Your task to perform on an android device: open the mobile data screen to see how much data has been used Image 0: 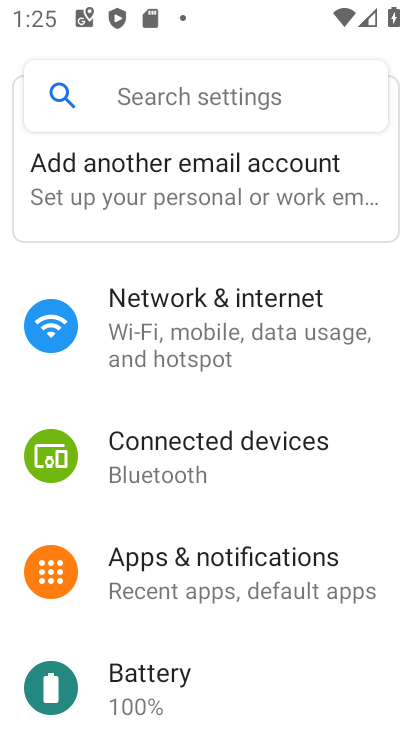
Step 0: click (301, 307)
Your task to perform on an android device: open the mobile data screen to see how much data has been used Image 1: 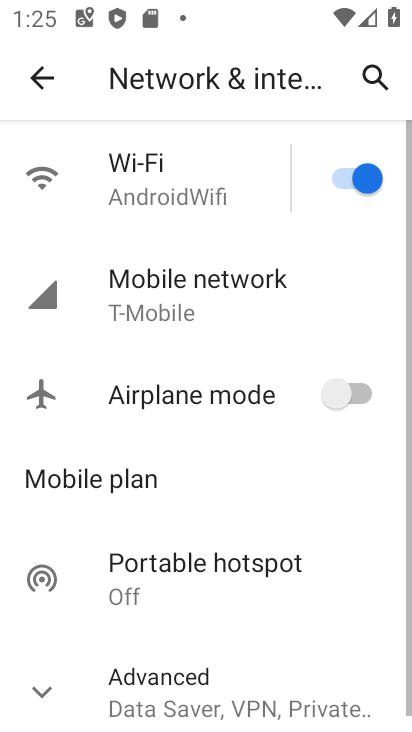
Step 1: click (197, 298)
Your task to perform on an android device: open the mobile data screen to see how much data has been used Image 2: 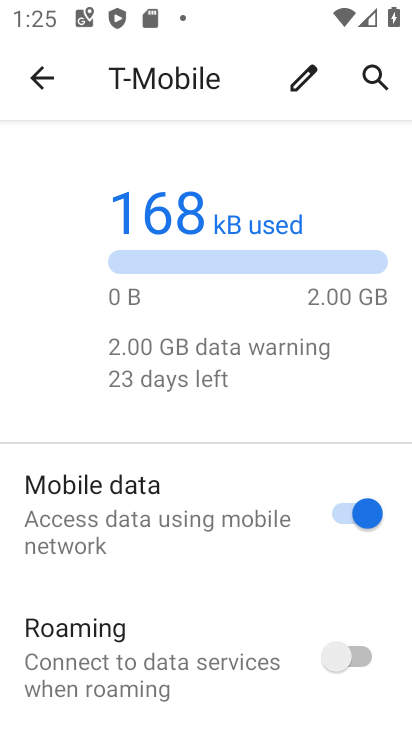
Step 2: task complete